Your task to perform on an android device: change the clock display to digital Image 0: 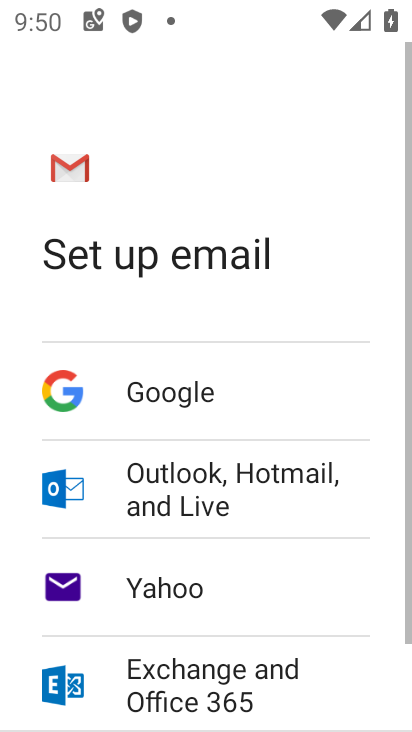
Step 0: press home button
Your task to perform on an android device: change the clock display to digital Image 1: 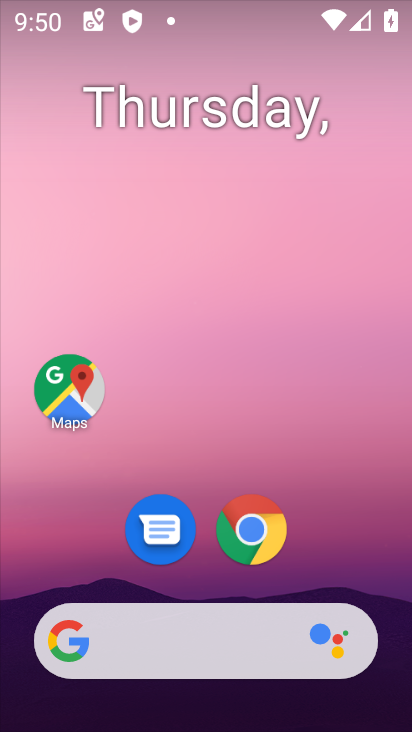
Step 1: drag from (311, 569) to (190, 18)
Your task to perform on an android device: change the clock display to digital Image 2: 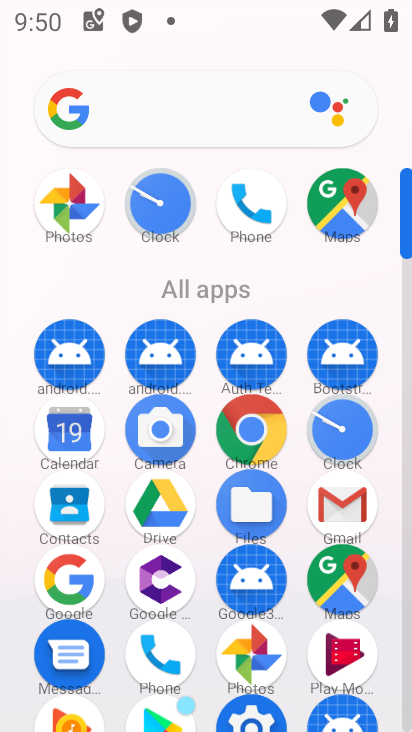
Step 2: click (322, 423)
Your task to perform on an android device: change the clock display to digital Image 3: 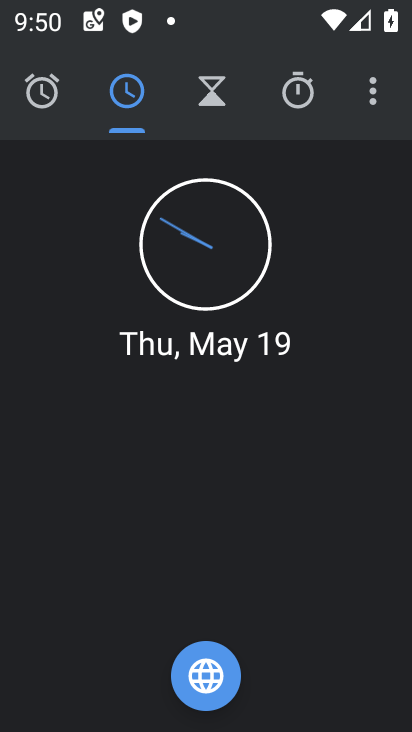
Step 3: click (355, 70)
Your task to perform on an android device: change the clock display to digital Image 4: 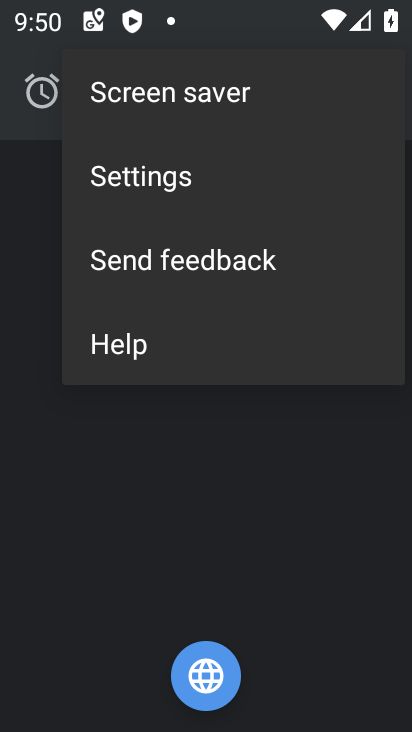
Step 4: click (162, 172)
Your task to perform on an android device: change the clock display to digital Image 5: 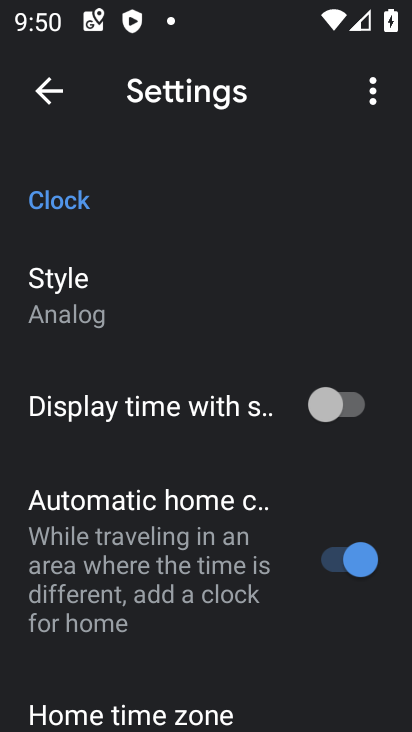
Step 5: click (122, 307)
Your task to perform on an android device: change the clock display to digital Image 6: 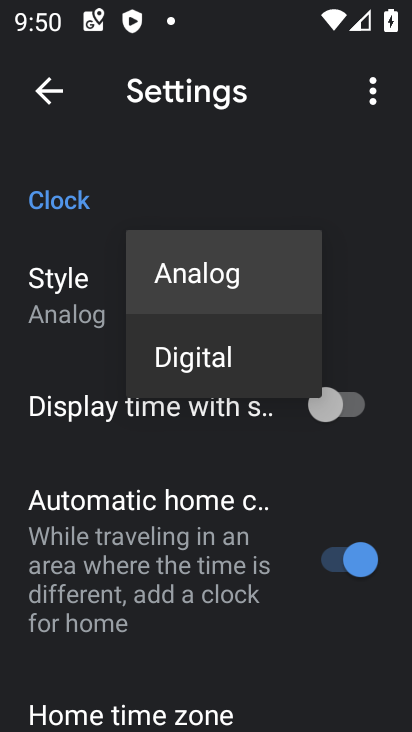
Step 6: click (185, 355)
Your task to perform on an android device: change the clock display to digital Image 7: 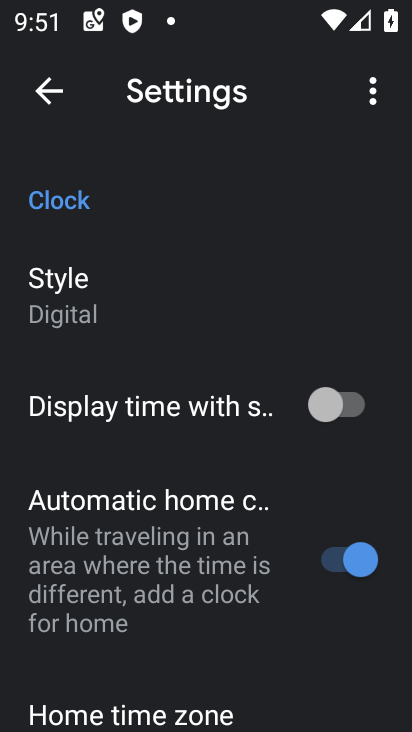
Step 7: task complete